Your task to perform on an android device: Add "razer blade" to the cart on newegg Image 0: 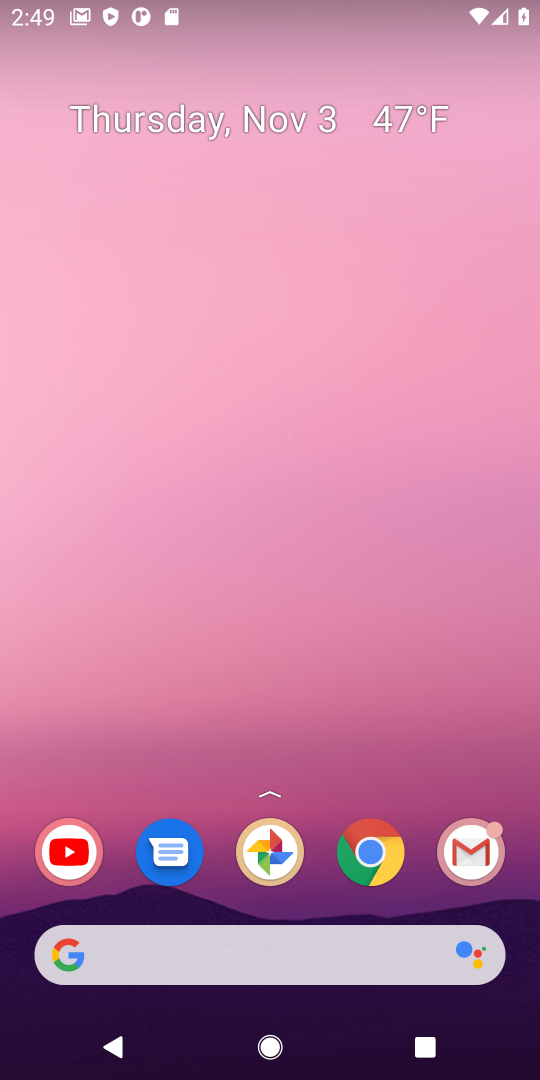
Step 0: click (365, 873)
Your task to perform on an android device: Add "razer blade" to the cart on newegg Image 1: 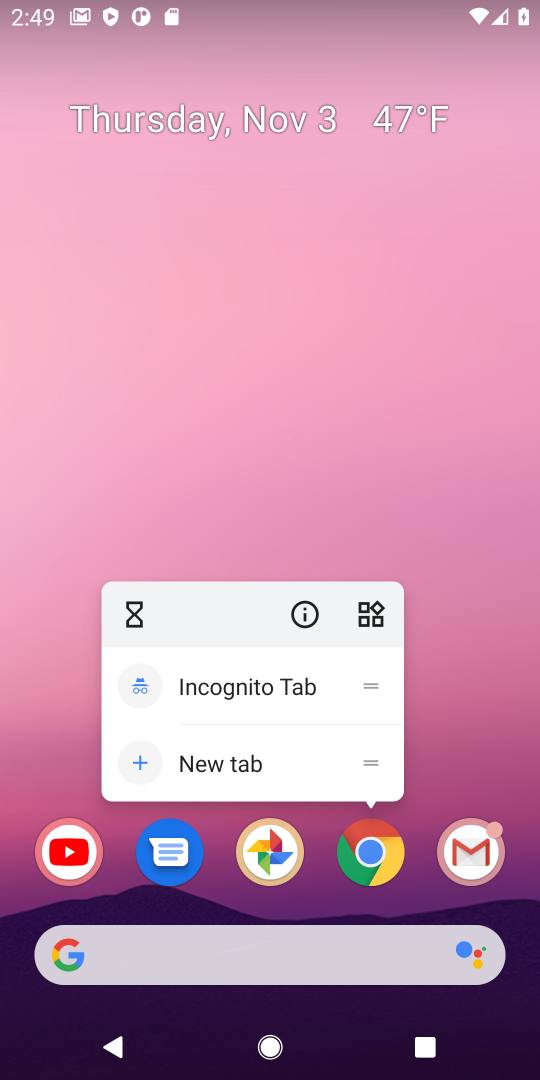
Step 1: click (366, 856)
Your task to perform on an android device: Add "razer blade" to the cart on newegg Image 2: 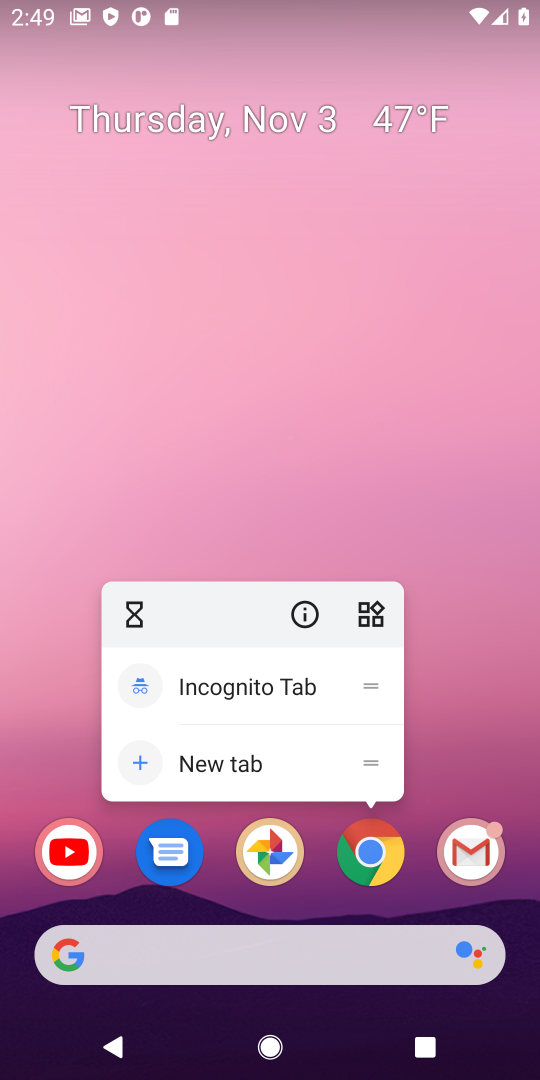
Step 2: click (366, 855)
Your task to perform on an android device: Add "razer blade" to the cart on newegg Image 3: 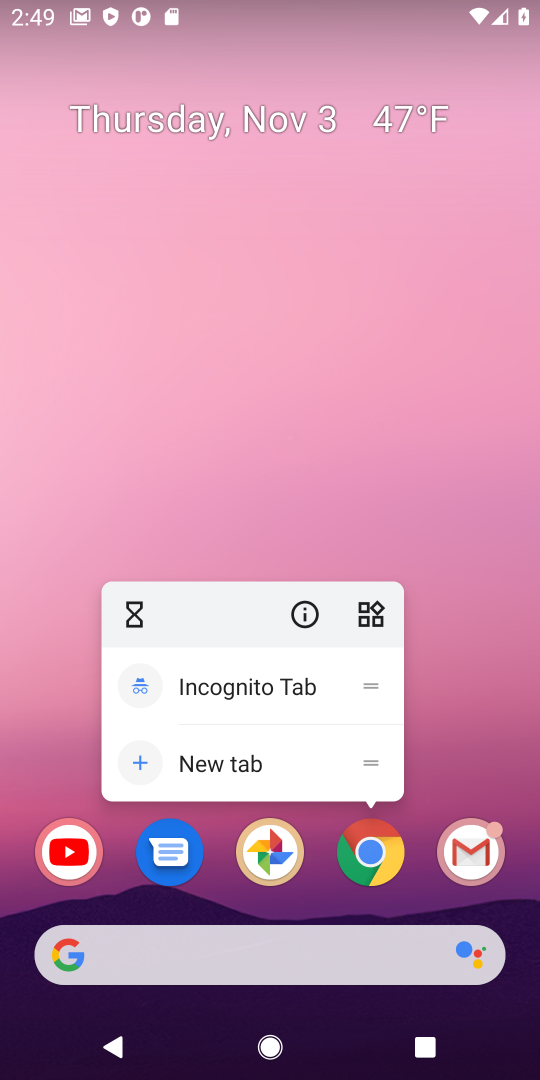
Step 3: click (366, 855)
Your task to perform on an android device: Add "razer blade" to the cart on newegg Image 4: 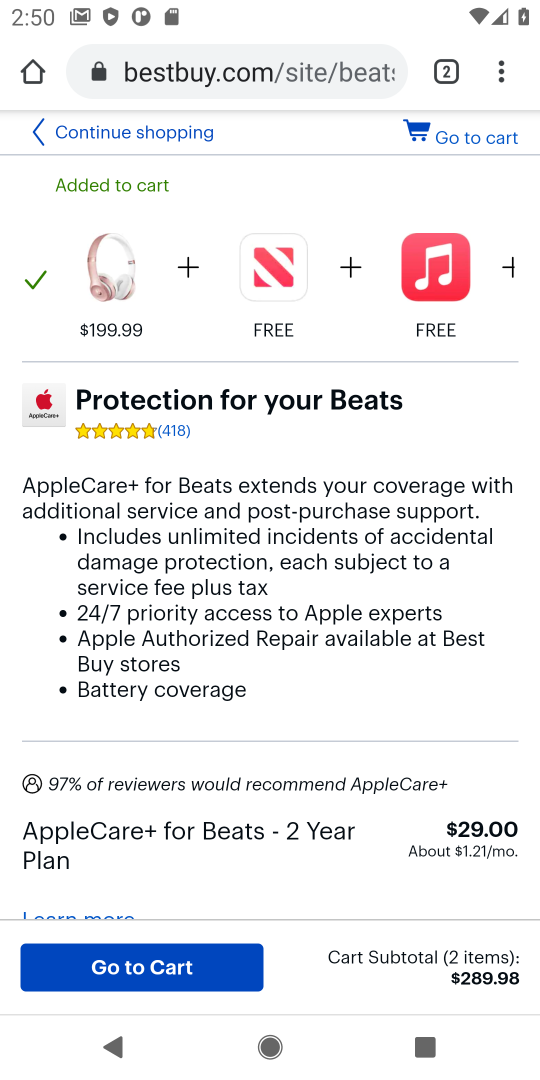
Step 4: click (198, 80)
Your task to perform on an android device: Add "razer blade" to the cart on newegg Image 5: 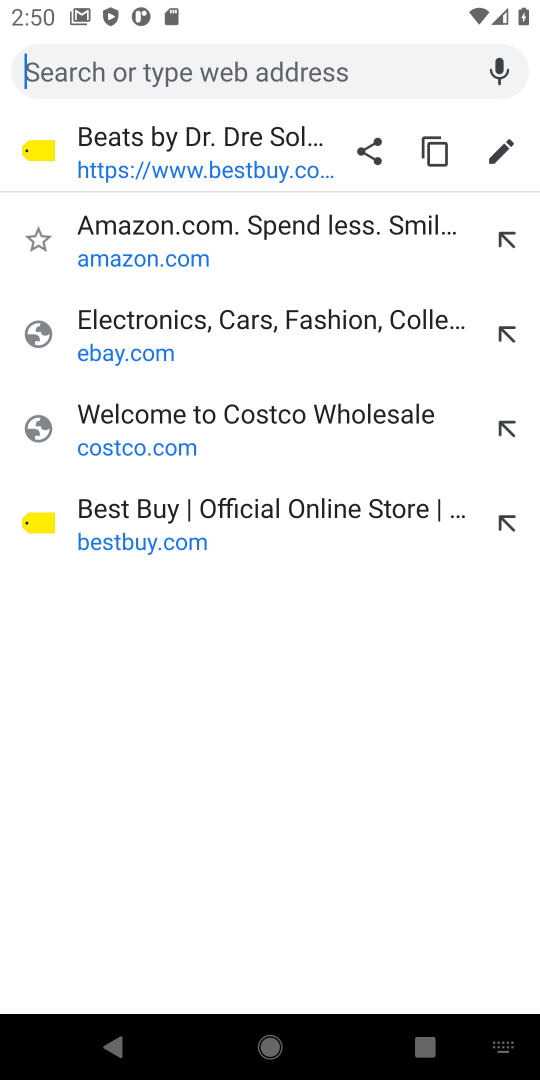
Step 5: type "newegg.com"
Your task to perform on an android device: Add "razer blade" to the cart on newegg Image 6: 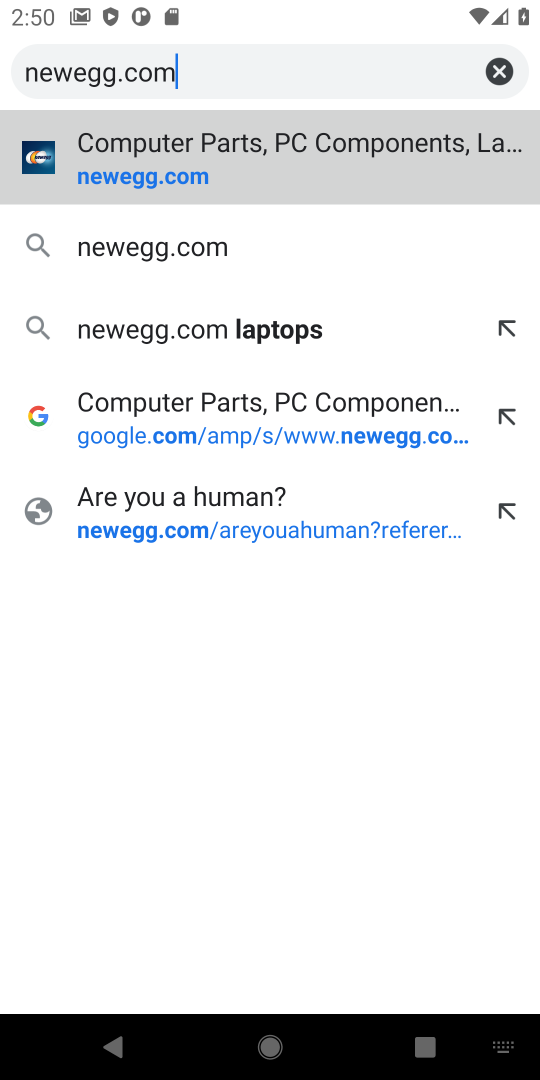
Step 6: click (131, 253)
Your task to perform on an android device: Add "razer blade" to the cart on newegg Image 7: 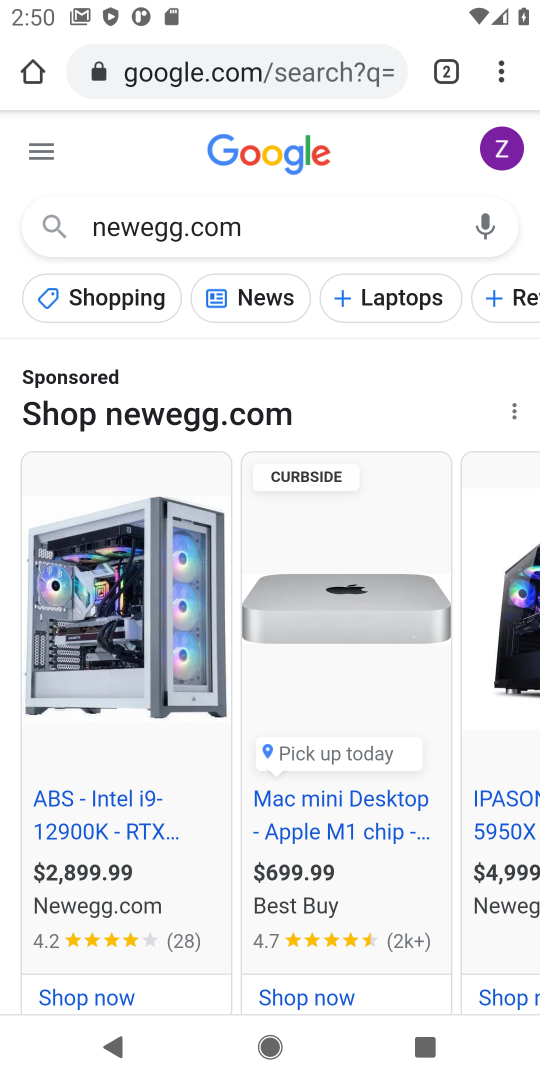
Step 7: drag from (204, 910) to (177, 319)
Your task to perform on an android device: Add "razer blade" to the cart on newegg Image 8: 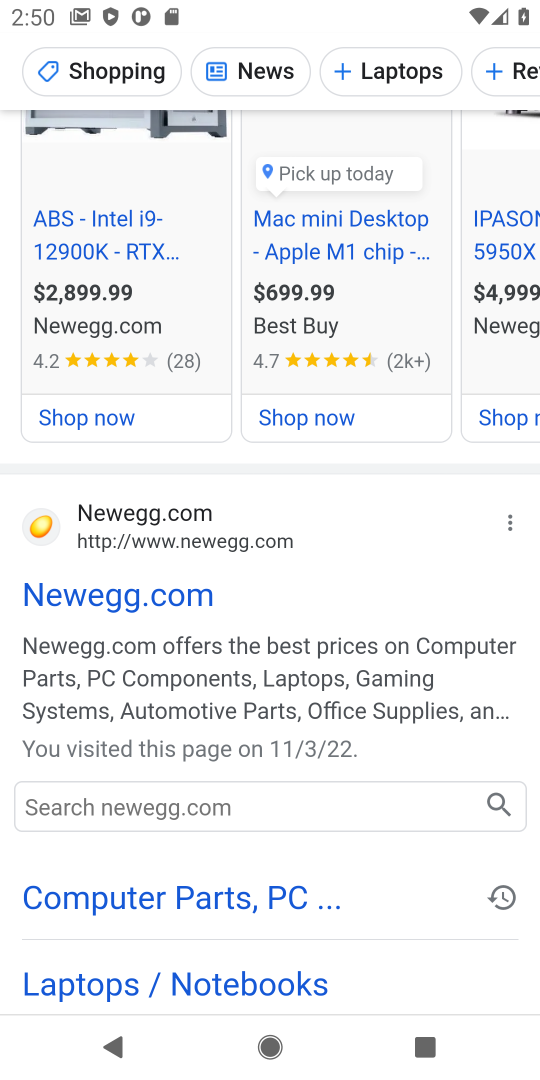
Step 8: click (121, 609)
Your task to perform on an android device: Add "razer blade" to the cart on newegg Image 9: 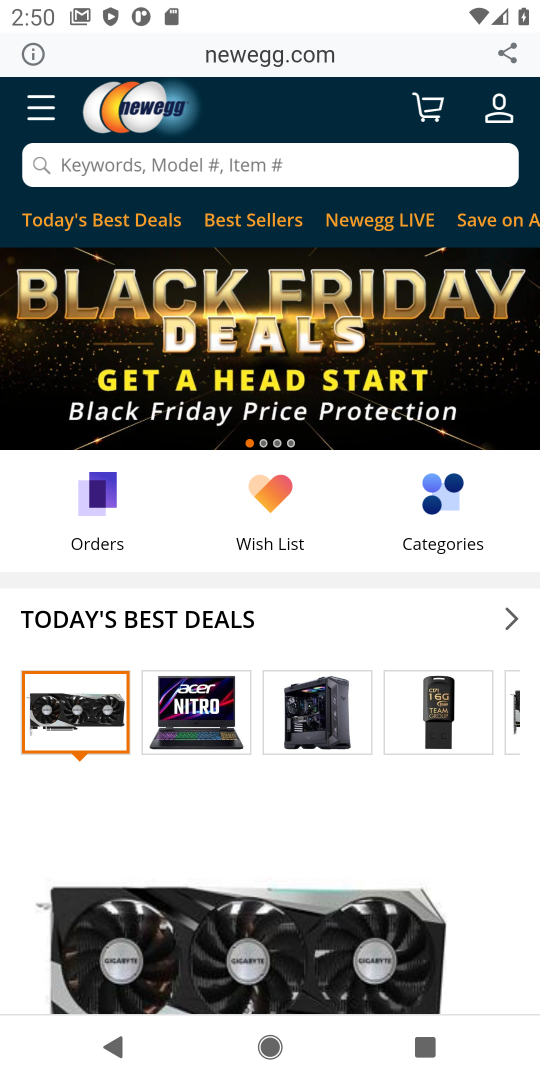
Step 9: click (152, 172)
Your task to perform on an android device: Add "razer blade" to the cart on newegg Image 10: 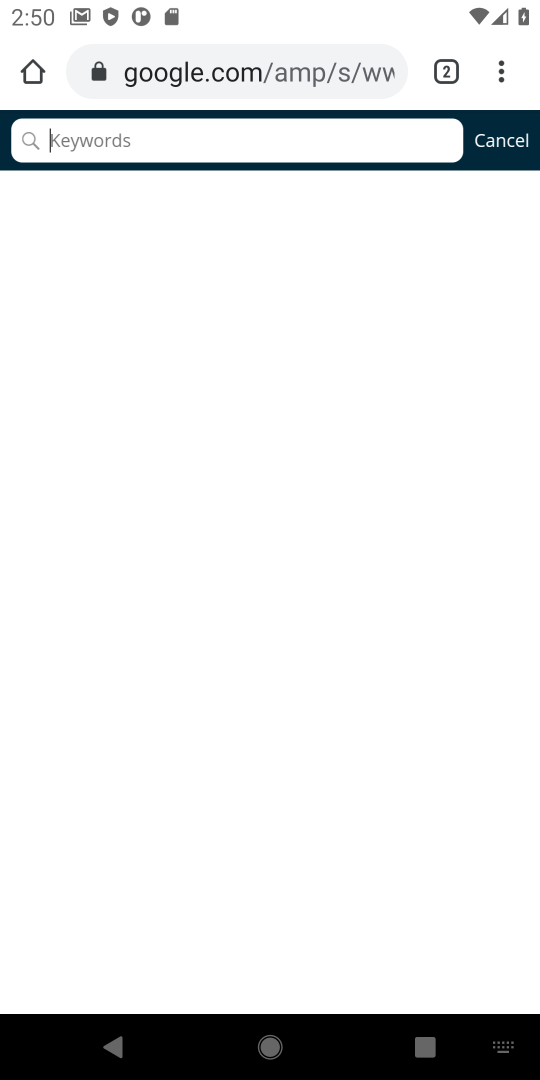
Step 10: type "razer blade "
Your task to perform on an android device: Add "razer blade" to the cart on newegg Image 11: 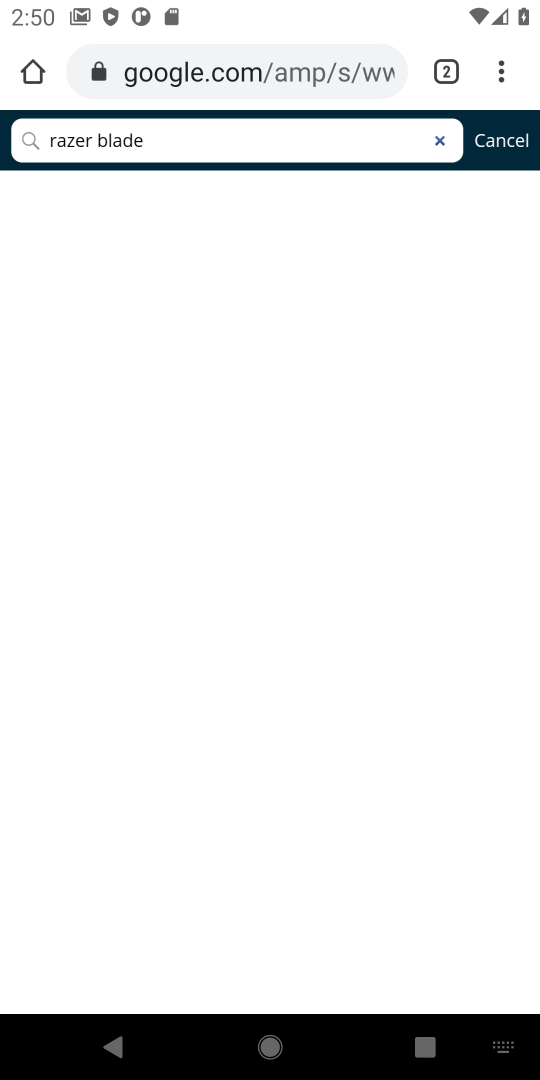
Step 11: click (30, 144)
Your task to perform on an android device: Add "razer blade" to the cart on newegg Image 12: 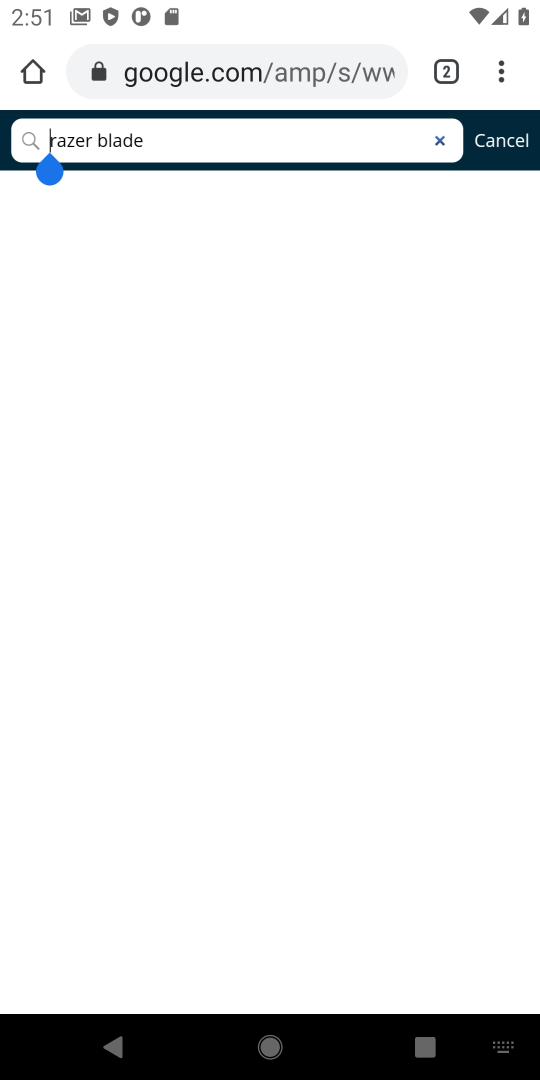
Step 12: click (497, 139)
Your task to perform on an android device: Add "razer blade" to the cart on newegg Image 13: 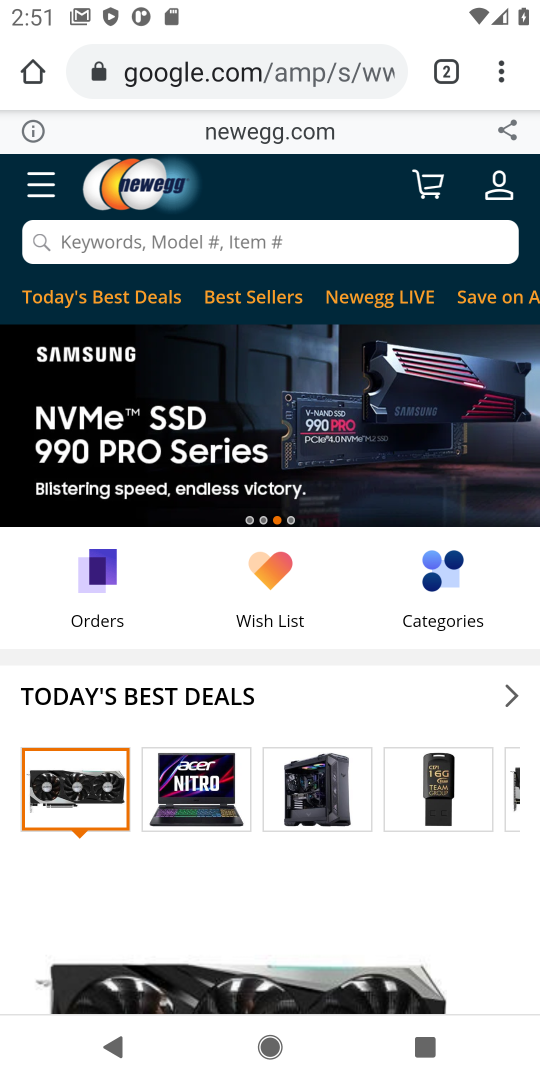
Step 13: click (119, 248)
Your task to perform on an android device: Add "razer blade" to the cart on newegg Image 14: 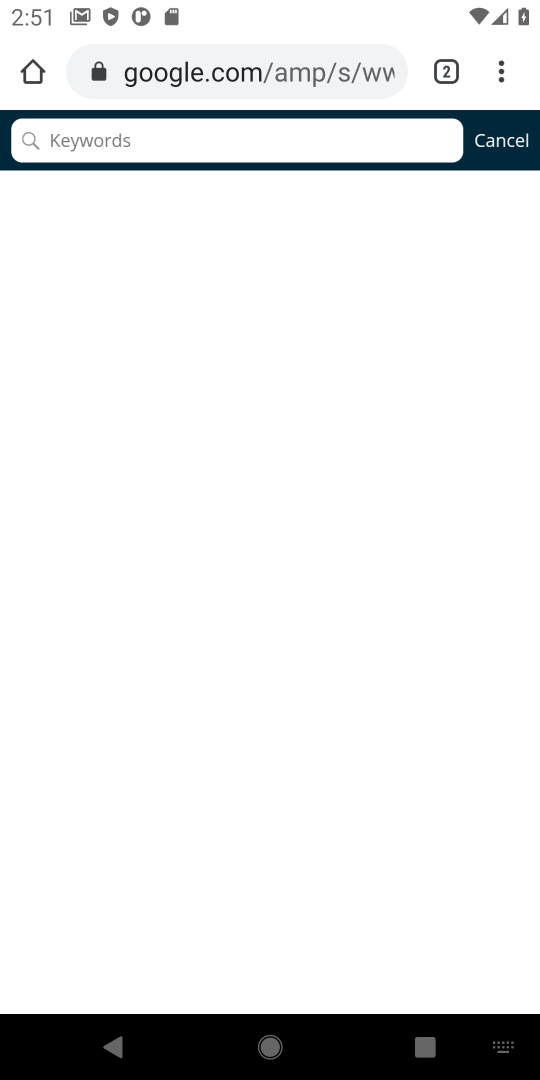
Step 14: type "razer blade"
Your task to perform on an android device: Add "razer blade" to the cart on newegg Image 15: 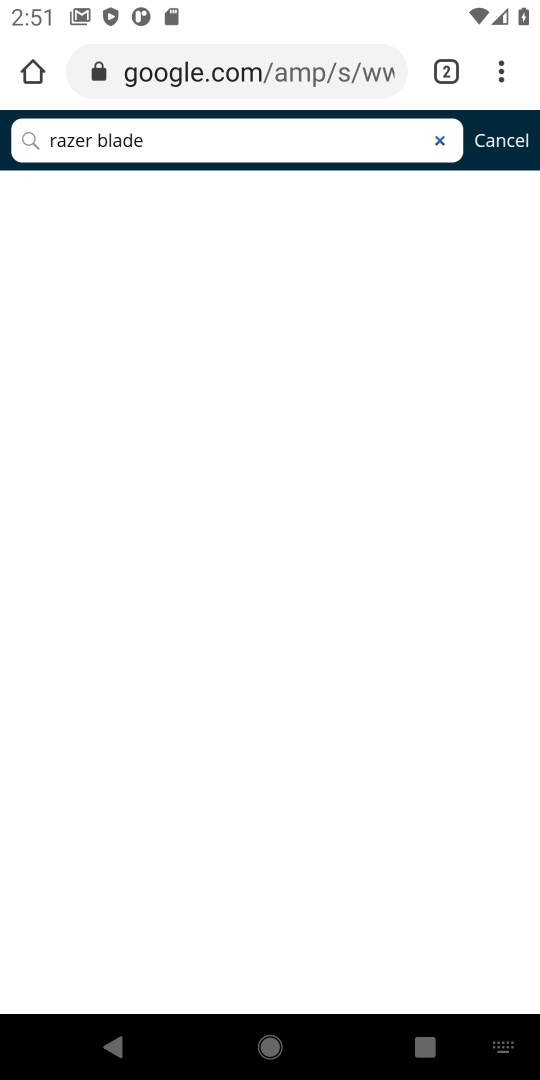
Step 15: click (31, 140)
Your task to perform on an android device: Add "razer blade" to the cart on newegg Image 16: 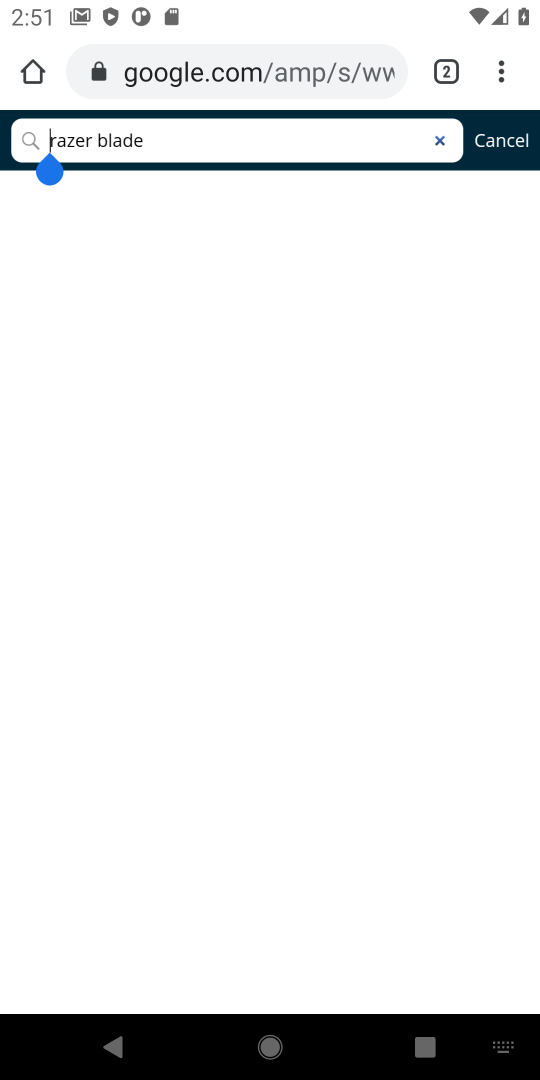
Step 16: task complete